Your task to perform on an android device: toggle notification dots Image 0: 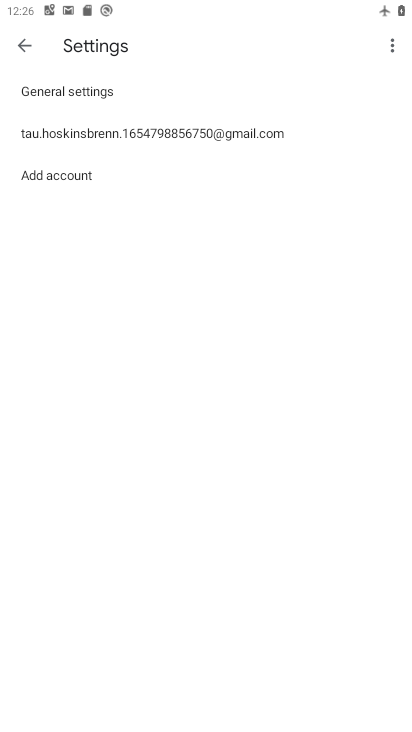
Step 0: press home button
Your task to perform on an android device: toggle notification dots Image 1: 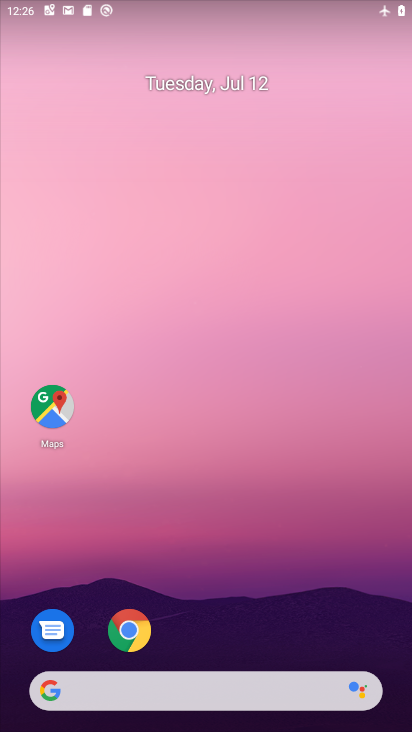
Step 1: drag from (250, 600) to (319, 154)
Your task to perform on an android device: toggle notification dots Image 2: 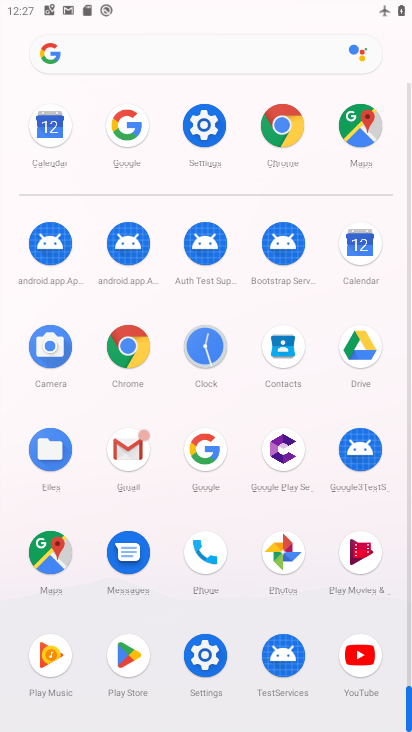
Step 2: click (227, 130)
Your task to perform on an android device: toggle notification dots Image 3: 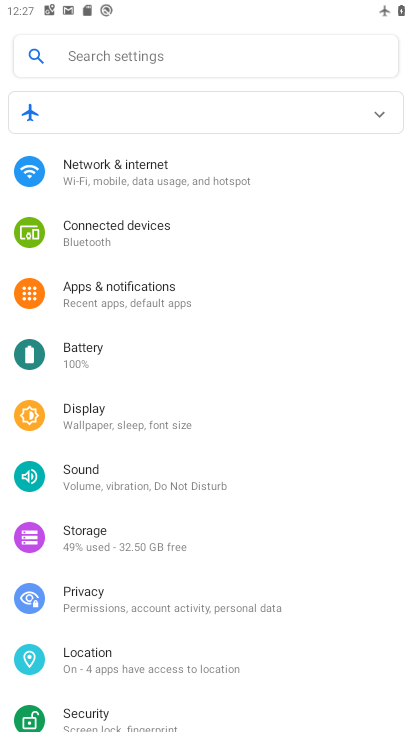
Step 3: click (148, 286)
Your task to perform on an android device: toggle notification dots Image 4: 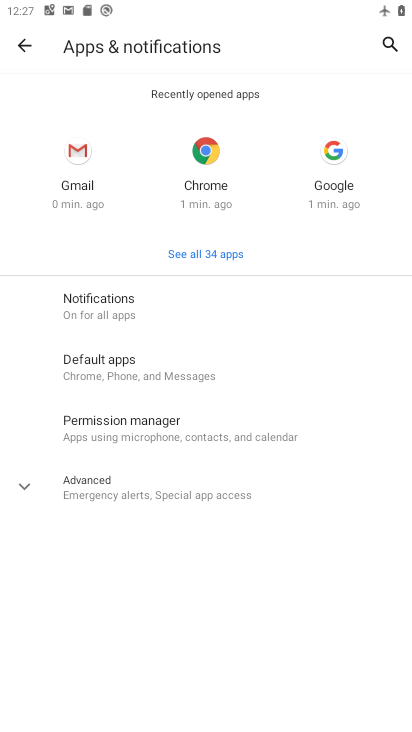
Step 4: click (156, 318)
Your task to perform on an android device: toggle notification dots Image 5: 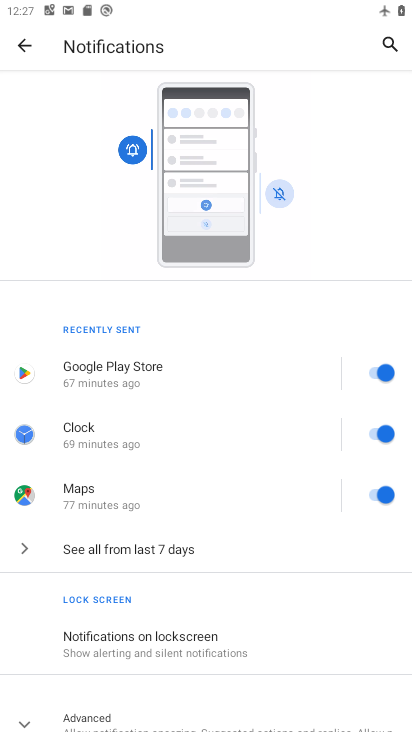
Step 5: drag from (162, 644) to (199, 276)
Your task to perform on an android device: toggle notification dots Image 6: 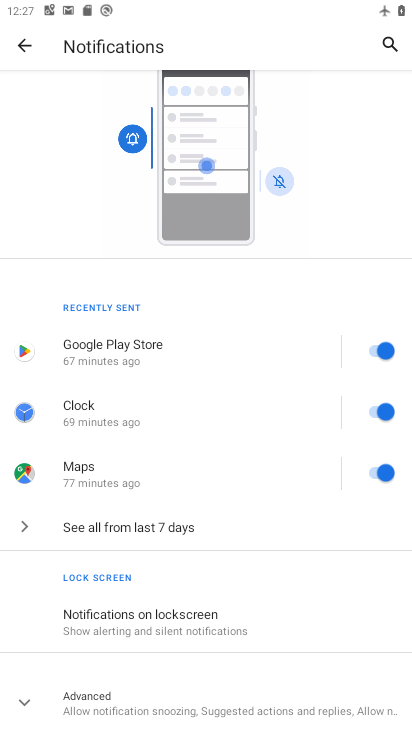
Step 6: click (150, 709)
Your task to perform on an android device: toggle notification dots Image 7: 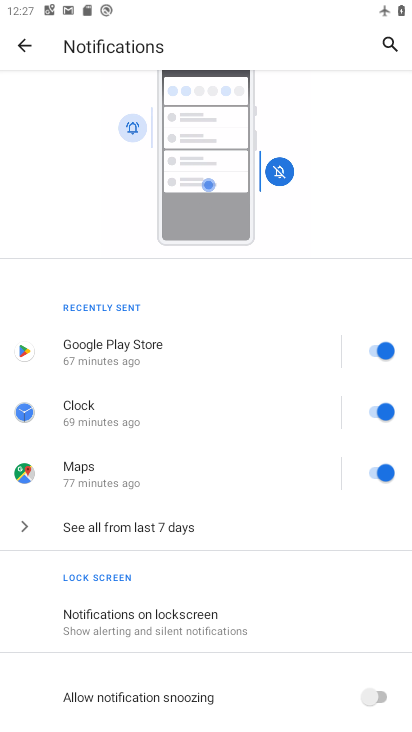
Step 7: drag from (216, 613) to (216, 305)
Your task to perform on an android device: toggle notification dots Image 8: 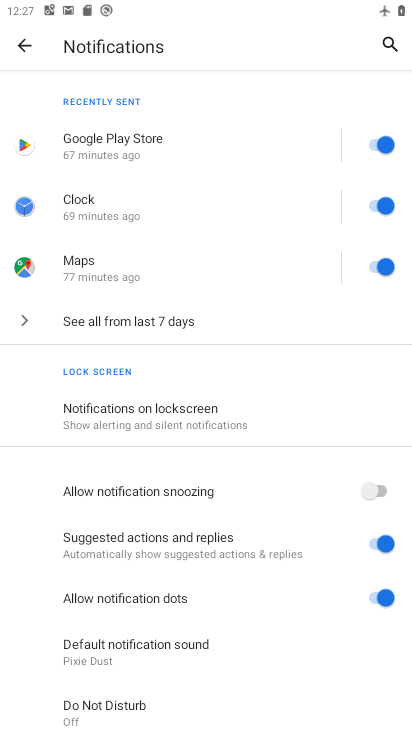
Step 8: click (371, 614)
Your task to perform on an android device: toggle notification dots Image 9: 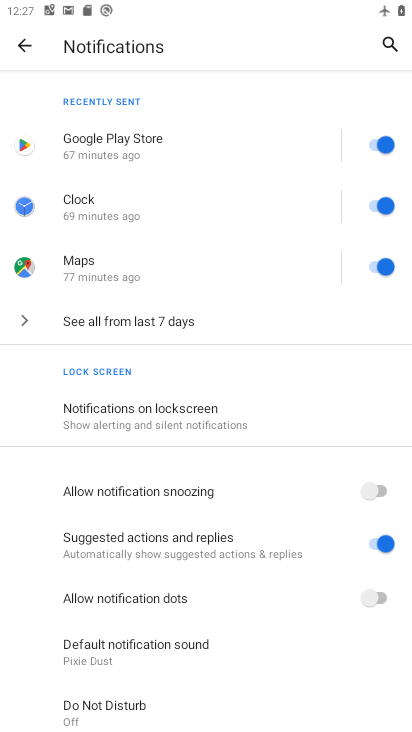
Step 9: task complete